Your task to perform on an android device: change the clock style Image 0: 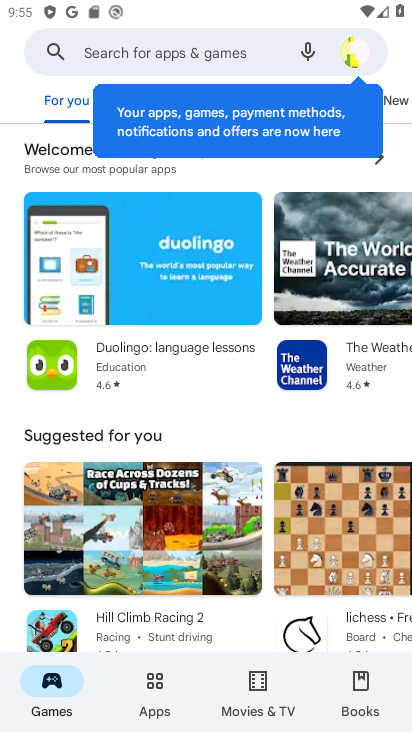
Step 0: press home button
Your task to perform on an android device: change the clock style Image 1: 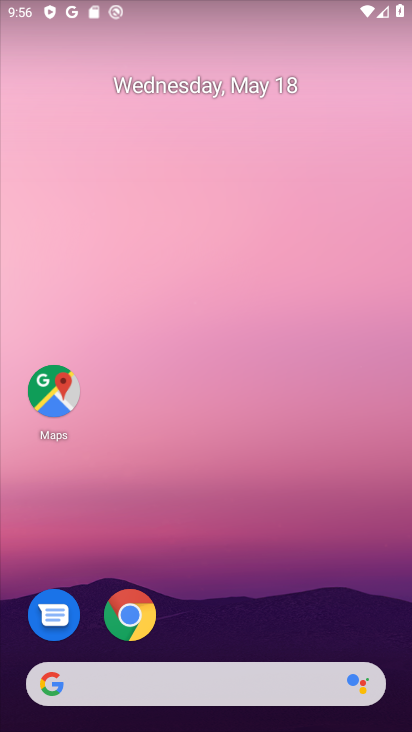
Step 1: drag from (303, 620) to (241, 59)
Your task to perform on an android device: change the clock style Image 2: 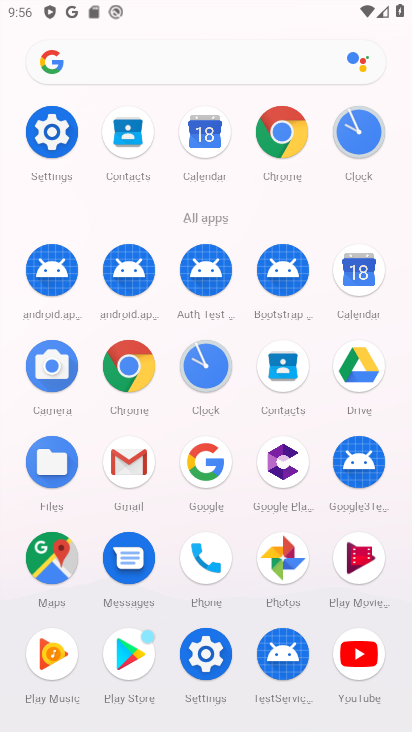
Step 2: click (213, 381)
Your task to perform on an android device: change the clock style Image 3: 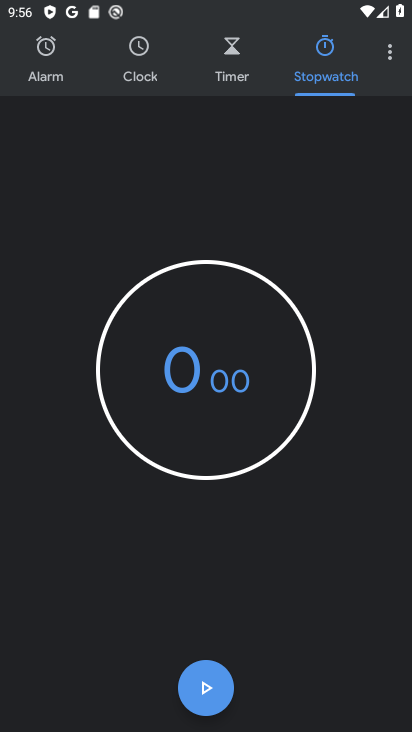
Step 3: click (398, 55)
Your task to perform on an android device: change the clock style Image 4: 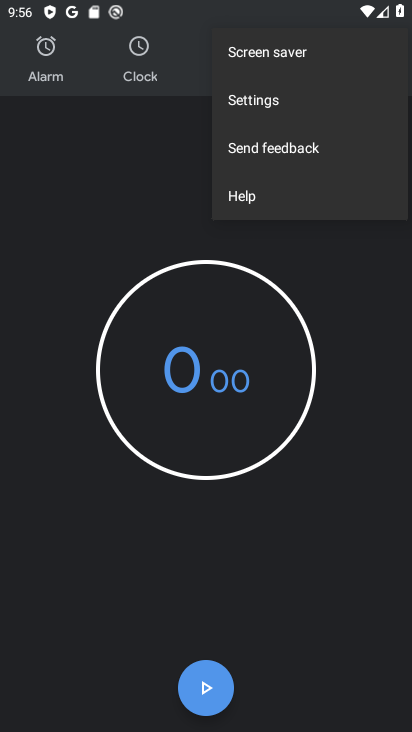
Step 4: click (274, 107)
Your task to perform on an android device: change the clock style Image 5: 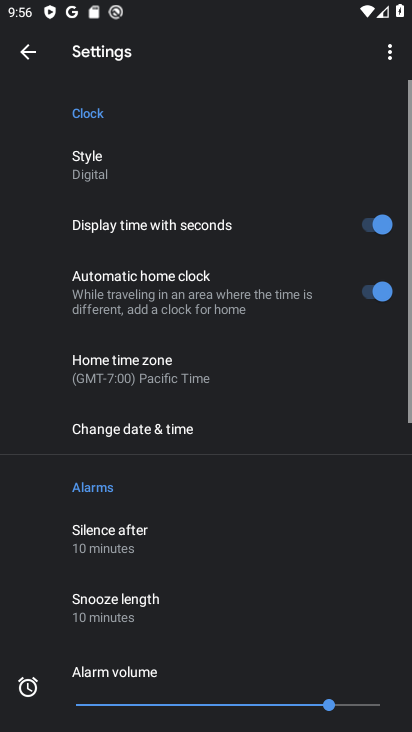
Step 5: click (179, 153)
Your task to perform on an android device: change the clock style Image 6: 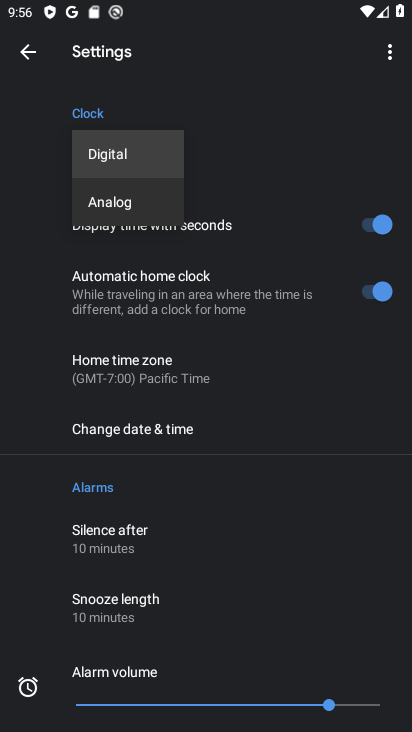
Step 6: click (127, 200)
Your task to perform on an android device: change the clock style Image 7: 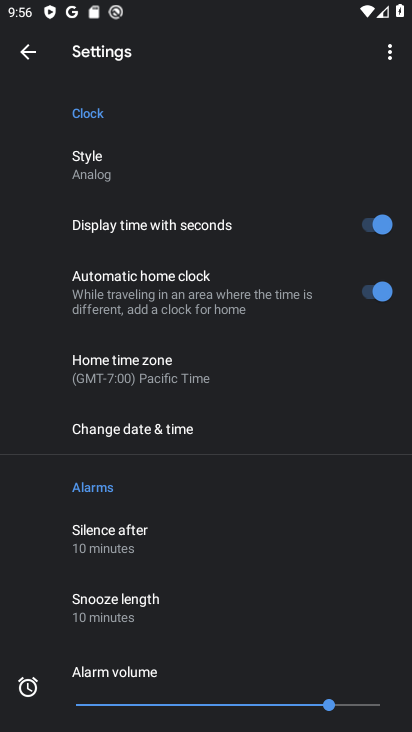
Step 7: task complete